Your task to perform on an android device: empty trash in the gmail app Image 0: 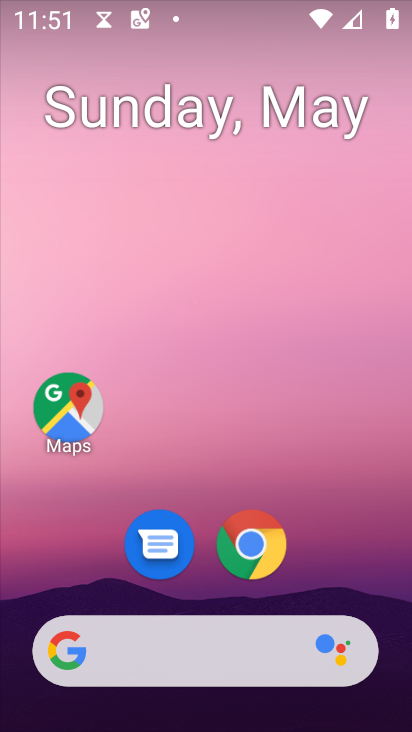
Step 0: drag from (338, 566) to (350, 272)
Your task to perform on an android device: empty trash in the gmail app Image 1: 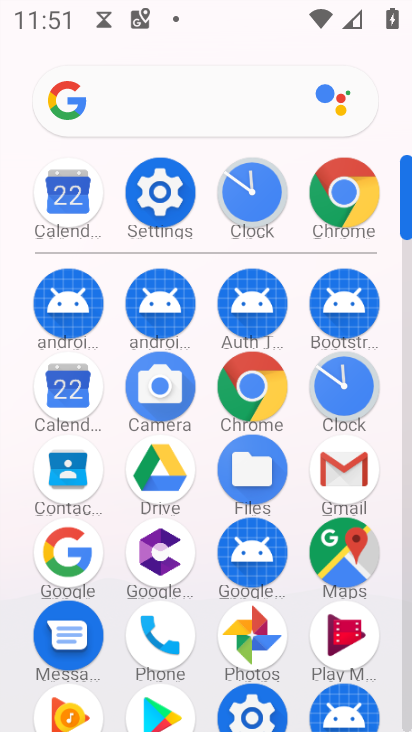
Step 1: click (349, 461)
Your task to perform on an android device: empty trash in the gmail app Image 2: 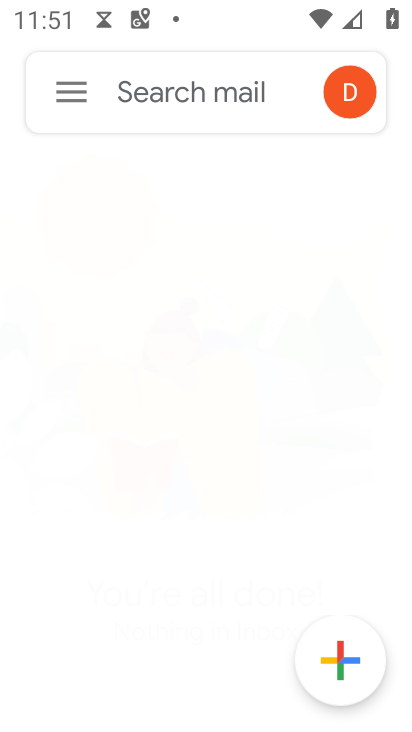
Step 2: click (66, 87)
Your task to perform on an android device: empty trash in the gmail app Image 3: 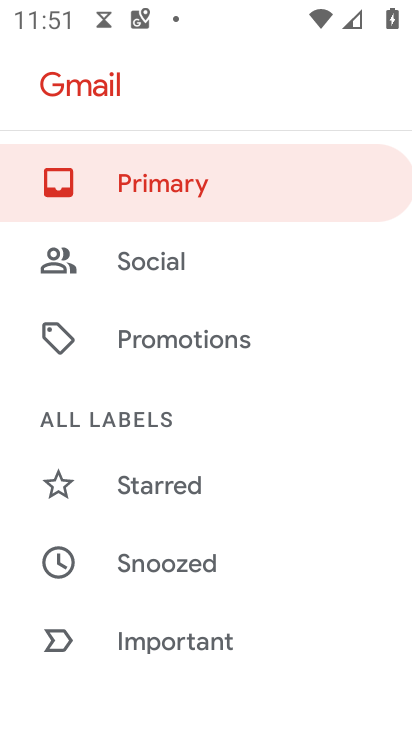
Step 3: drag from (243, 587) to (275, 265)
Your task to perform on an android device: empty trash in the gmail app Image 4: 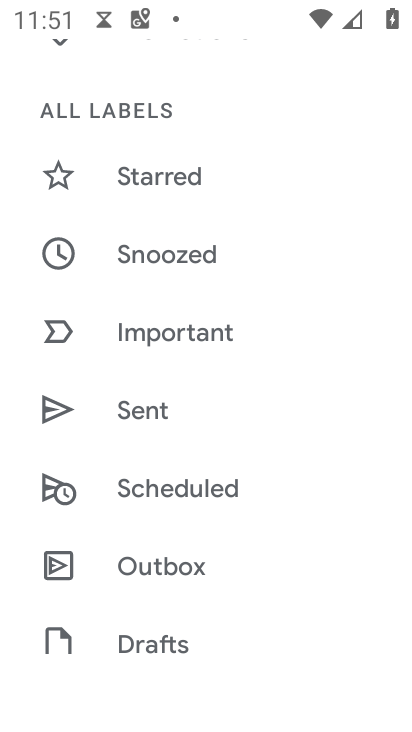
Step 4: drag from (151, 583) to (225, 270)
Your task to perform on an android device: empty trash in the gmail app Image 5: 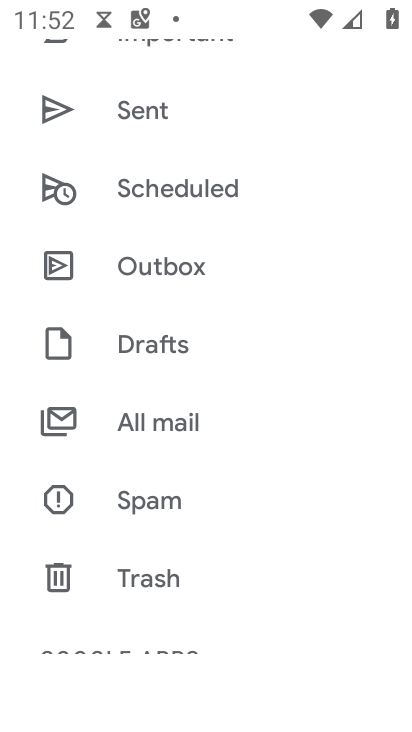
Step 5: click (130, 560)
Your task to perform on an android device: empty trash in the gmail app Image 6: 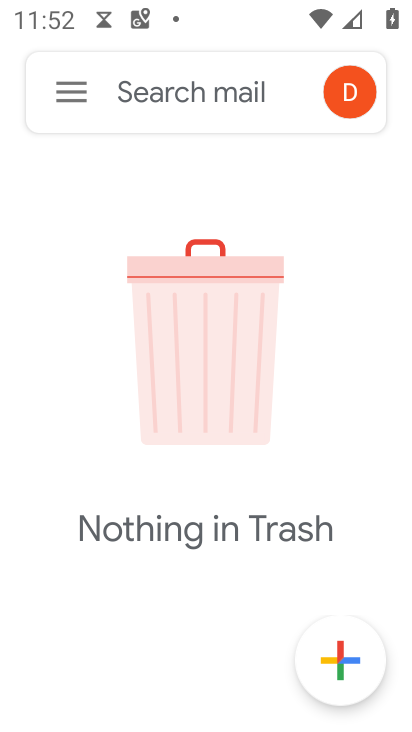
Step 6: task complete